Your task to perform on an android device: set the stopwatch Image 0: 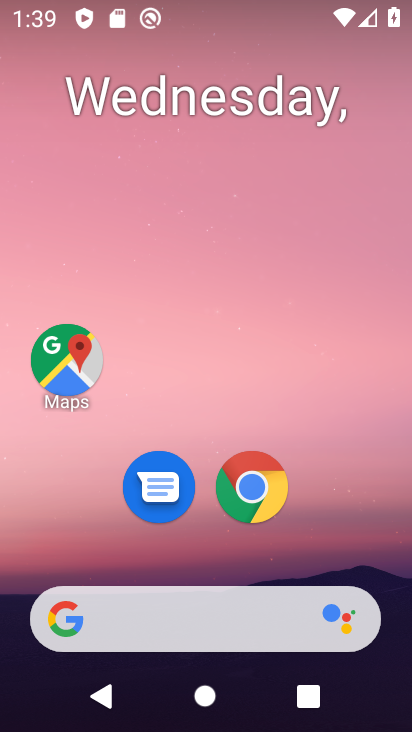
Step 0: drag from (152, 592) to (205, 13)
Your task to perform on an android device: set the stopwatch Image 1: 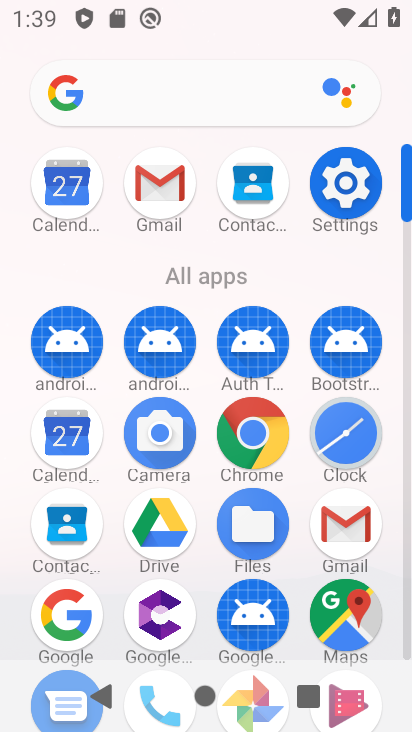
Step 1: click (349, 435)
Your task to perform on an android device: set the stopwatch Image 2: 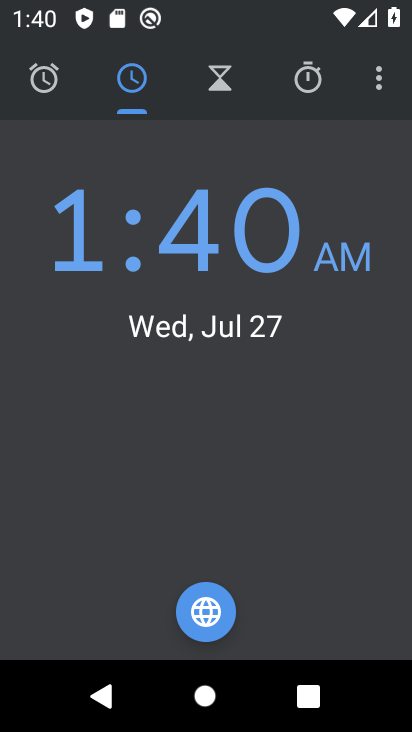
Step 2: click (305, 76)
Your task to perform on an android device: set the stopwatch Image 3: 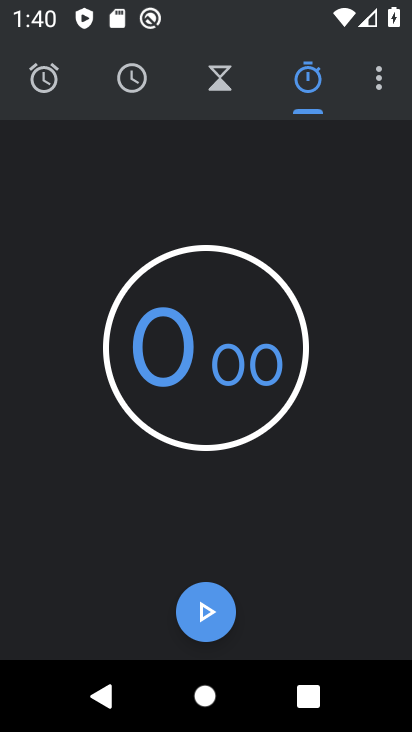
Step 3: click (183, 324)
Your task to perform on an android device: set the stopwatch Image 4: 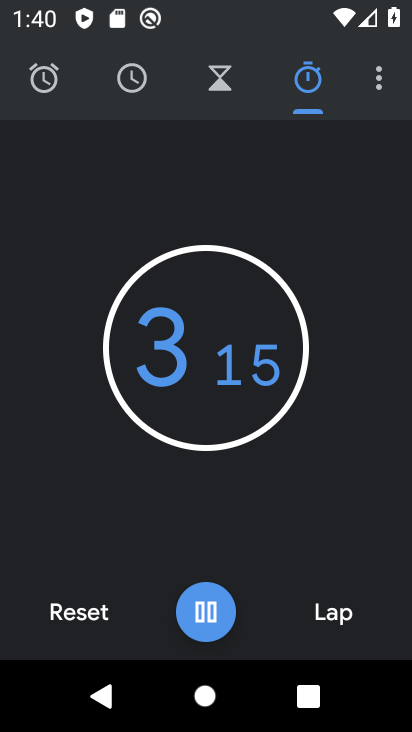
Step 4: click (186, 313)
Your task to perform on an android device: set the stopwatch Image 5: 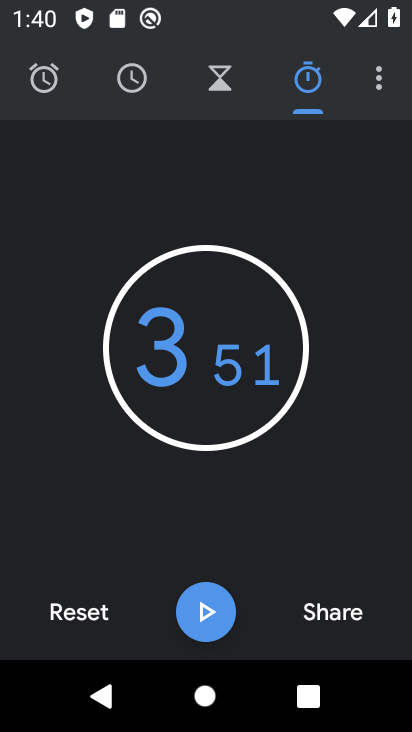
Step 5: task complete